Your task to perform on an android device: Open Google Maps Image 0: 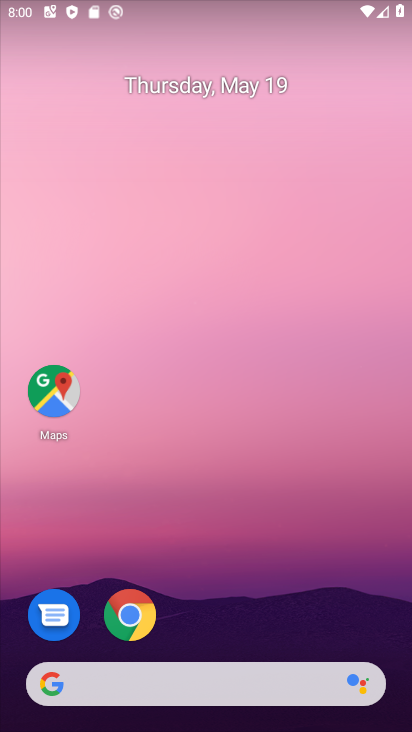
Step 0: drag from (271, 582) to (249, 2)
Your task to perform on an android device: Open Google Maps Image 1: 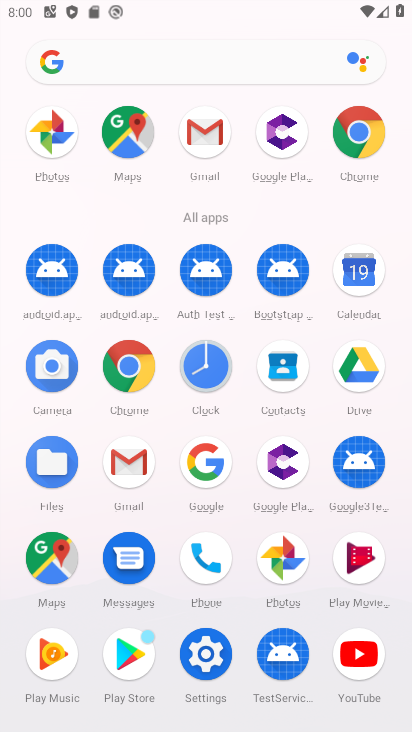
Step 1: click (54, 567)
Your task to perform on an android device: Open Google Maps Image 2: 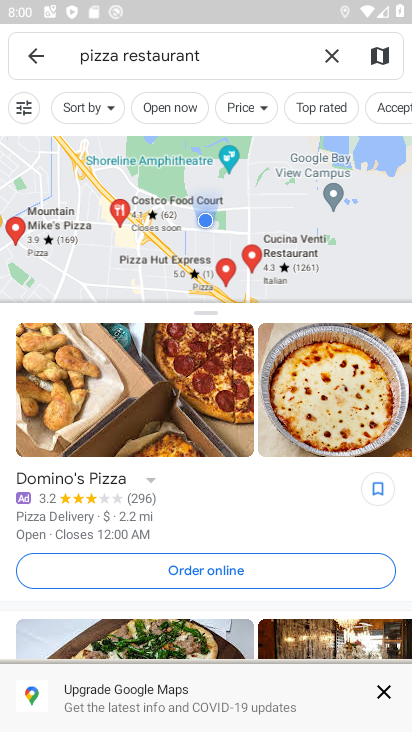
Step 2: task complete